Your task to perform on an android device: turn on wifi Image 0: 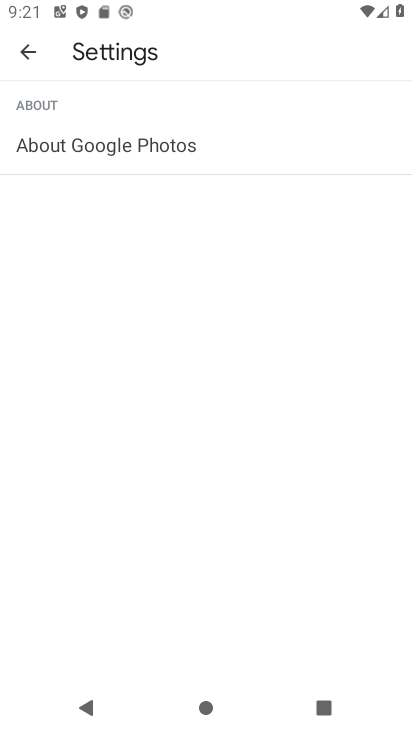
Step 0: press home button
Your task to perform on an android device: turn on wifi Image 1: 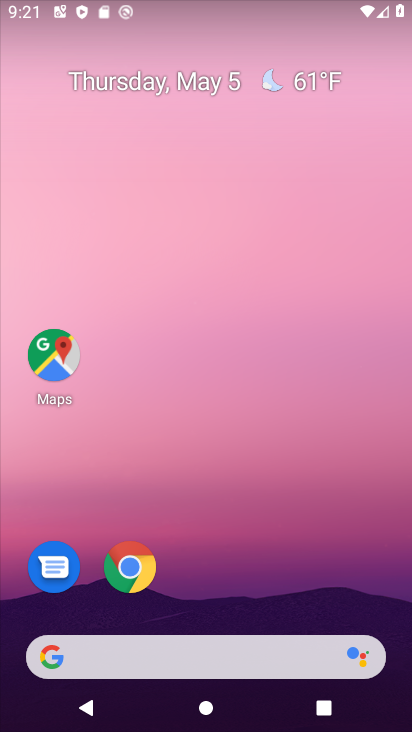
Step 1: drag from (223, 577) to (219, 160)
Your task to perform on an android device: turn on wifi Image 2: 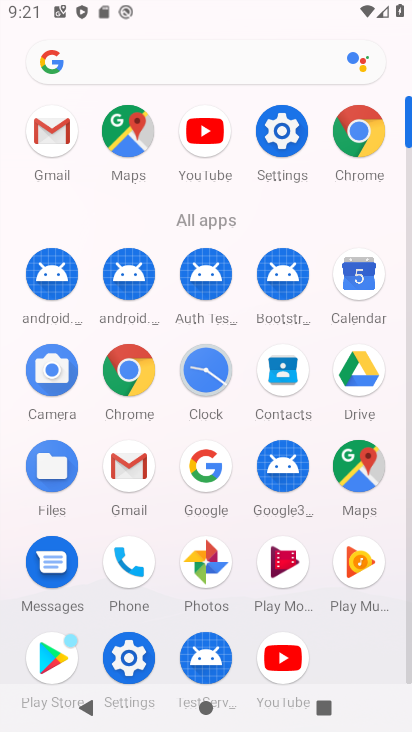
Step 2: click (278, 122)
Your task to perform on an android device: turn on wifi Image 3: 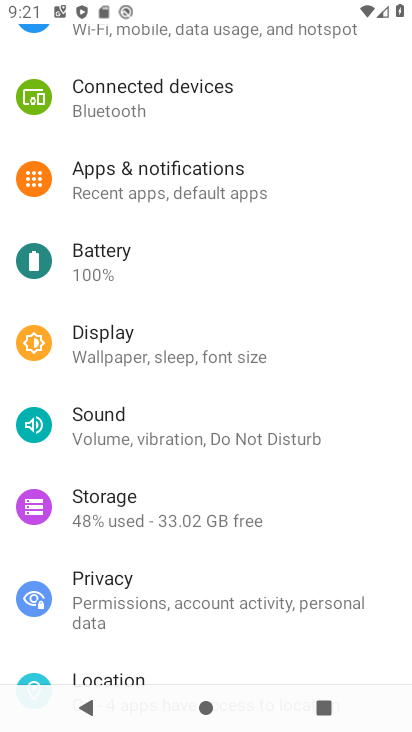
Step 3: drag from (255, 117) to (218, 448)
Your task to perform on an android device: turn on wifi Image 4: 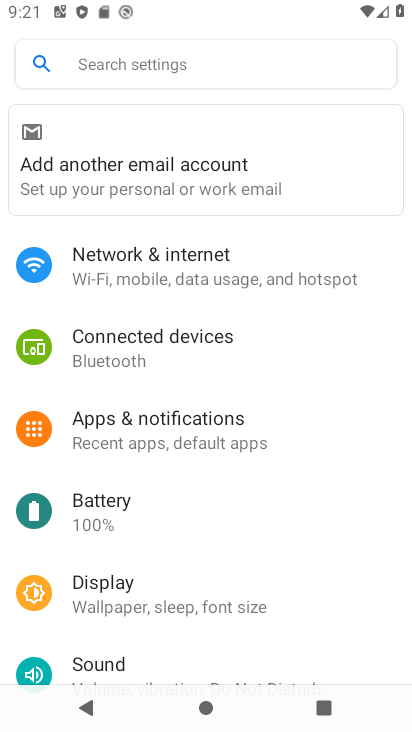
Step 4: click (222, 263)
Your task to perform on an android device: turn on wifi Image 5: 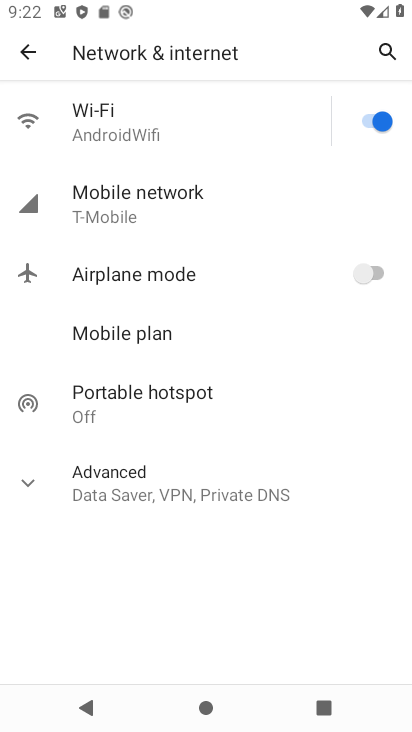
Step 5: click (105, 115)
Your task to perform on an android device: turn on wifi Image 6: 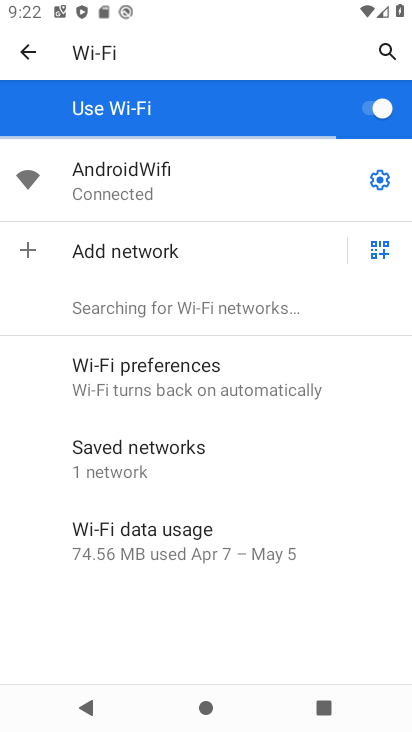
Step 6: task complete